Your task to perform on an android device: change the clock display to analog Image 0: 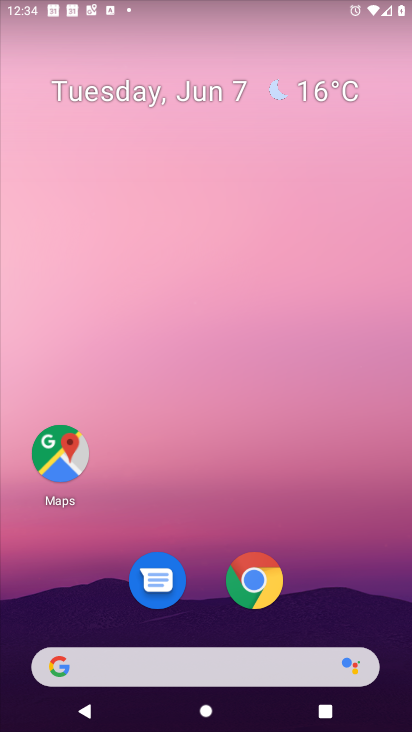
Step 0: drag from (370, 603) to (81, 0)
Your task to perform on an android device: change the clock display to analog Image 1: 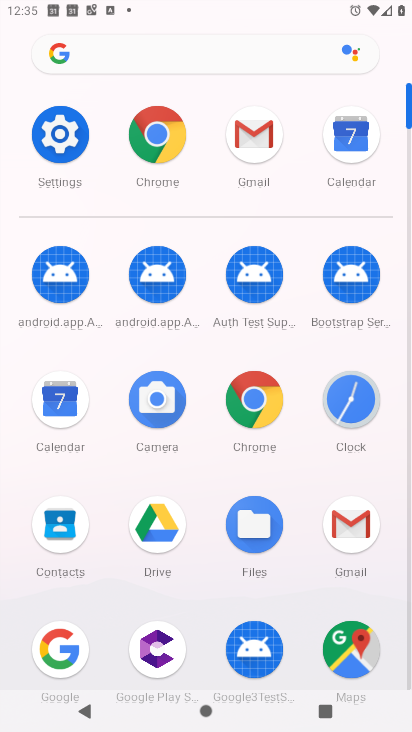
Step 1: click (343, 408)
Your task to perform on an android device: change the clock display to analog Image 2: 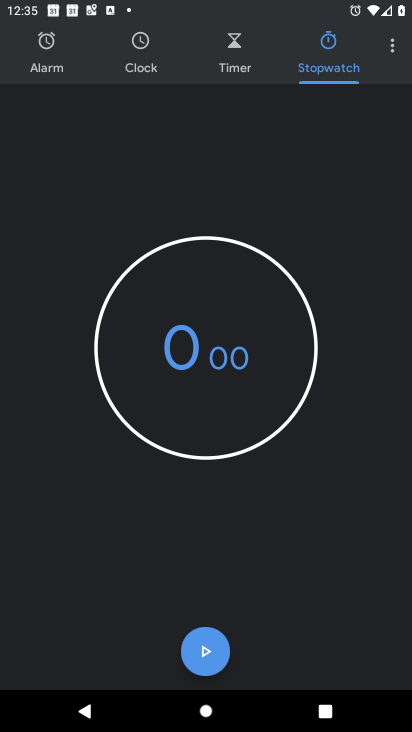
Step 2: click (387, 41)
Your task to perform on an android device: change the clock display to analog Image 3: 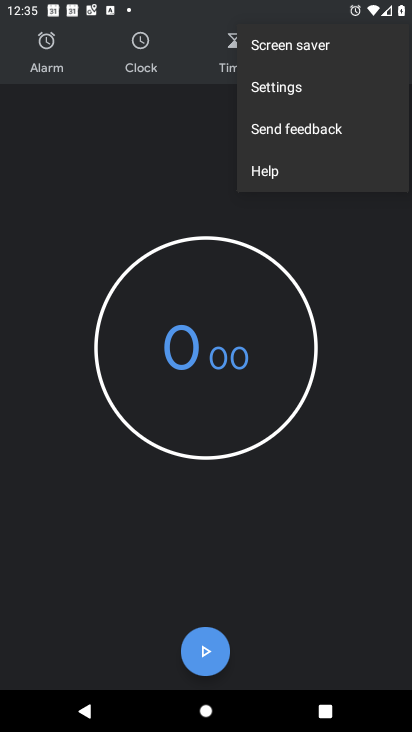
Step 3: click (286, 88)
Your task to perform on an android device: change the clock display to analog Image 4: 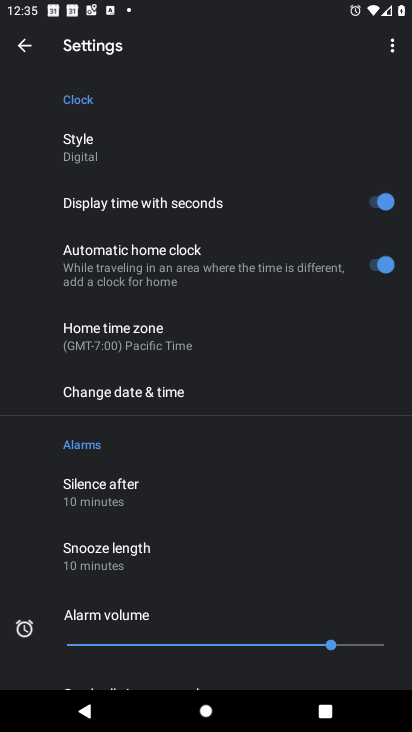
Step 4: click (98, 156)
Your task to perform on an android device: change the clock display to analog Image 5: 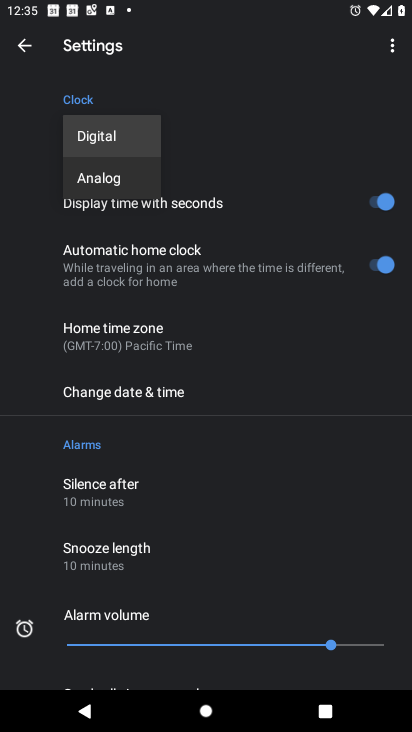
Step 5: click (108, 181)
Your task to perform on an android device: change the clock display to analog Image 6: 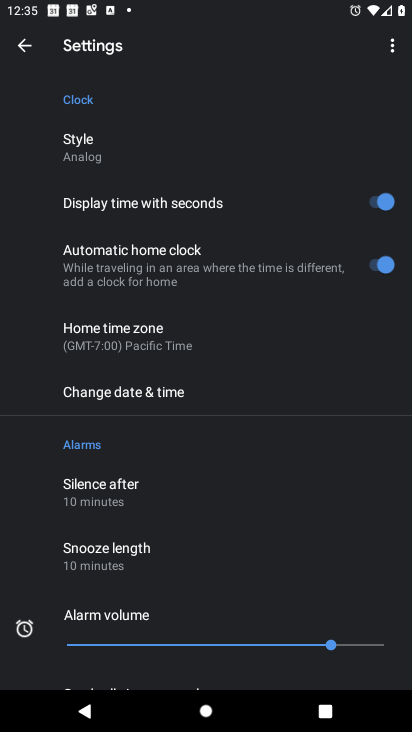
Step 6: task complete